Your task to perform on an android device: find which apps use the phone's location Image 0: 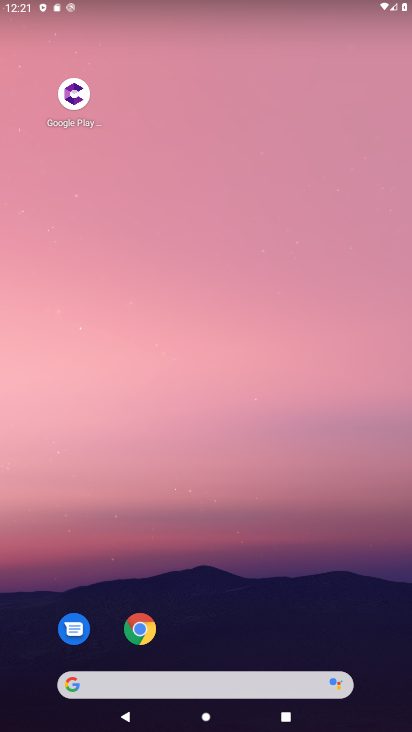
Step 0: drag from (316, 373) to (277, 258)
Your task to perform on an android device: find which apps use the phone's location Image 1: 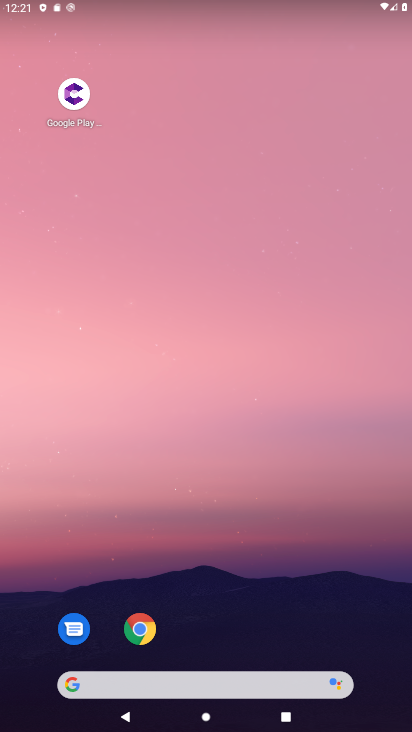
Step 1: drag from (305, 642) to (240, 240)
Your task to perform on an android device: find which apps use the phone's location Image 2: 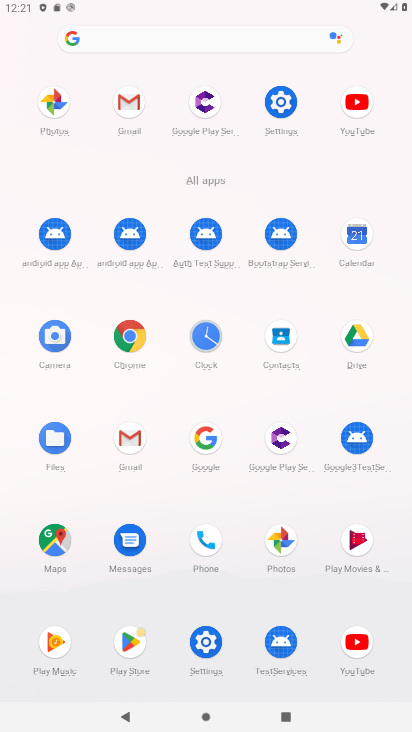
Step 2: click (279, 100)
Your task to perform on an android device: find which apps use the phone's location Image 3: 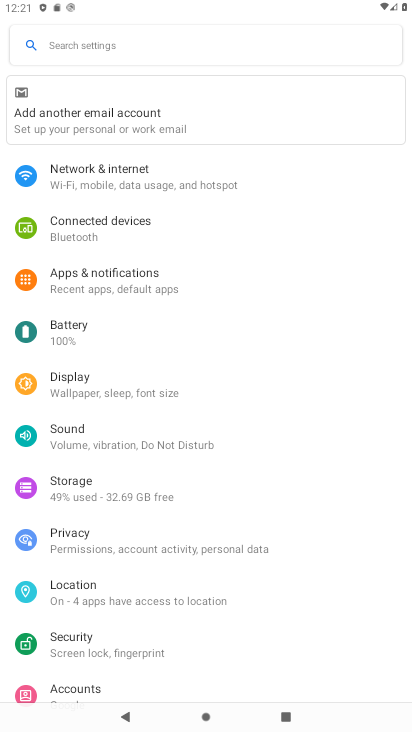
Step 3: click (208, 589)
Your task to perform on an android device: find which apps use the phone's location Image 4: 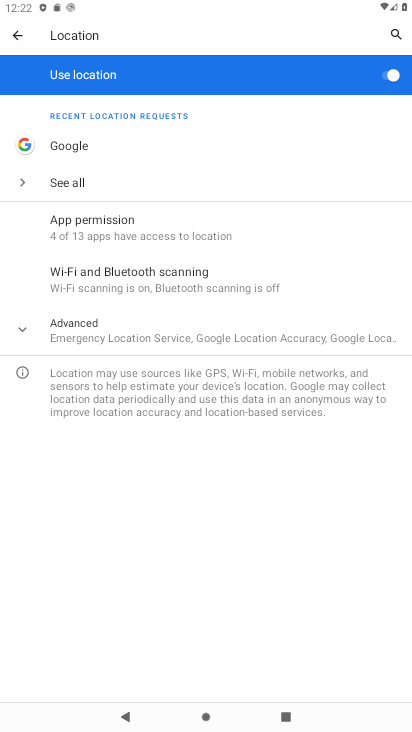
Step 4: click (232, 192)
Your task to perform on an android device: find which apps use the phone's location Image 5: 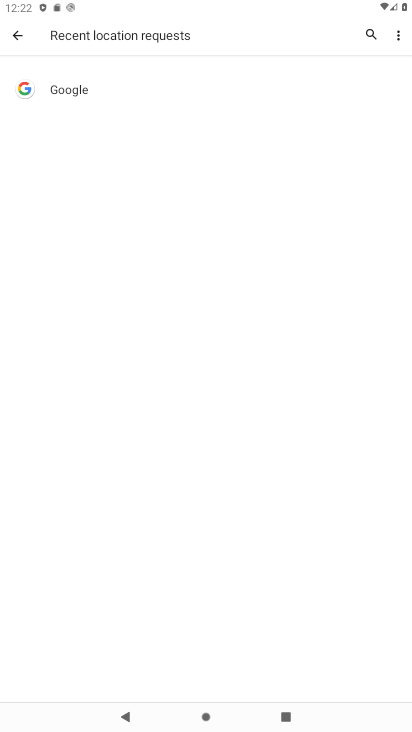
Step 5: task complete